Your task to perform on an android device: turn pop-ups off in chrome Image 0: 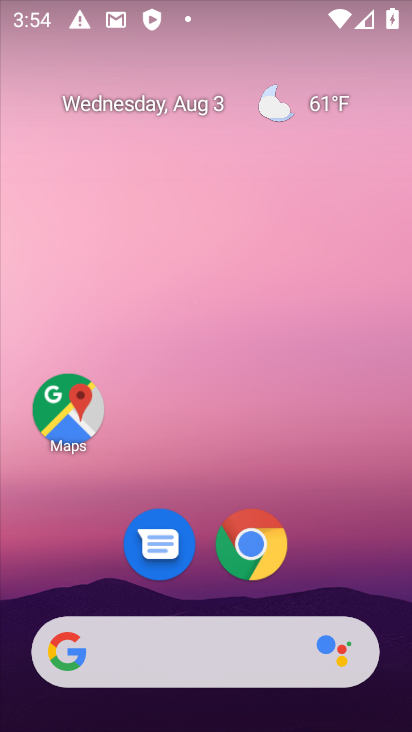
Step 0: click (261, 535)
Your task to perform on an android device: turn pop-ups off in chrome Image 1: 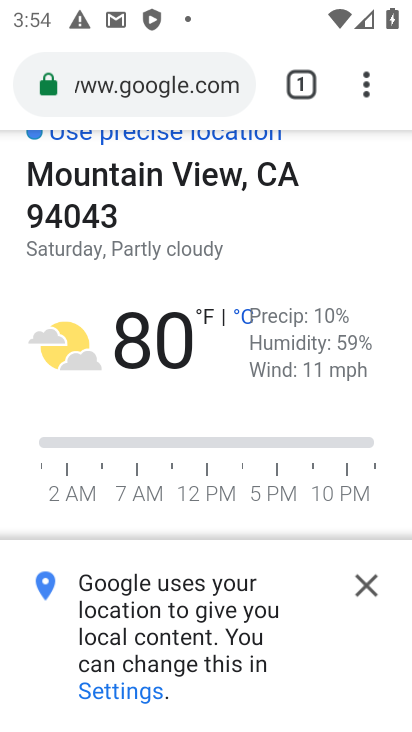
Step 1: drag from (364, 87) to (113, 602)
Your task to perform on an android device: turn pop-ups off in chrome Image 2: 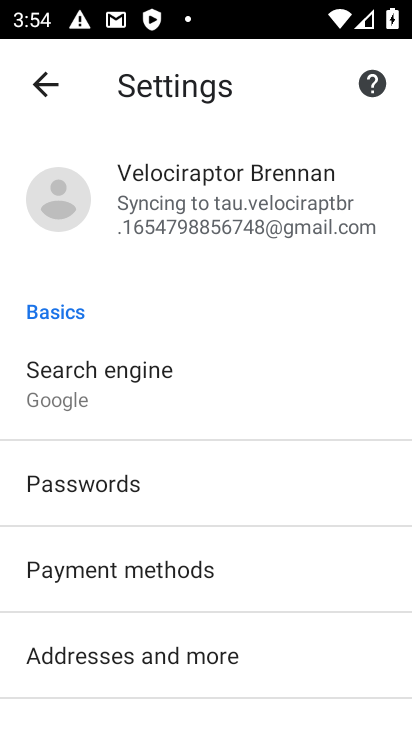
Step 2: drag from (189, 622) to (250, 241)
Your task to perform on an android device: turn pop-ups off in chrome Image 3: 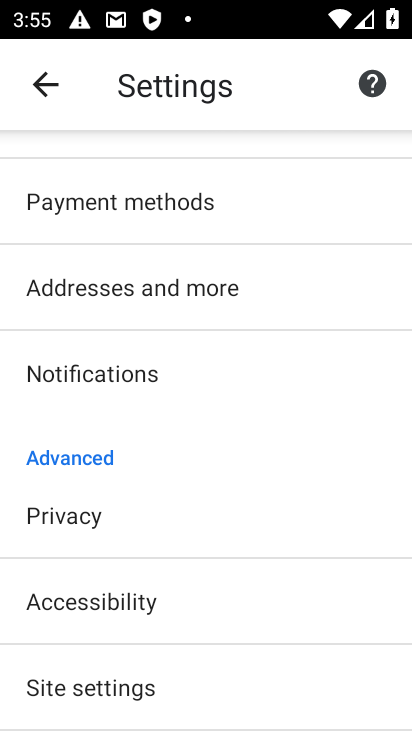
Step 3: drag from (206, 605) to (209, 348)
Your task to perform on an android device: turn pop-ups off in chrome Image 4: 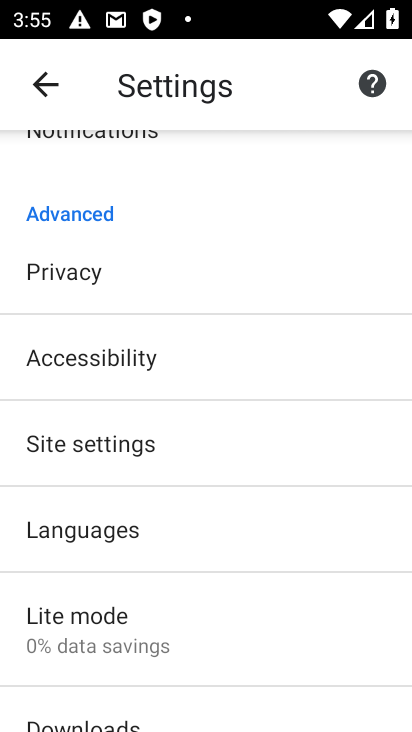
Step 4: click (99, 438)
Your task to perform on an android device: turn pop-ups off in chrome Image 5: 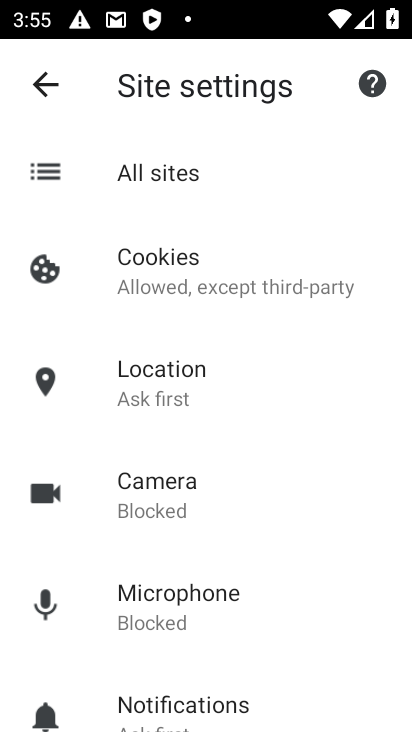
Step 5: drag from (229, 671) to (223, 218)
Your task to perform on an android device: turn pop-ups off in chrome Image 6: 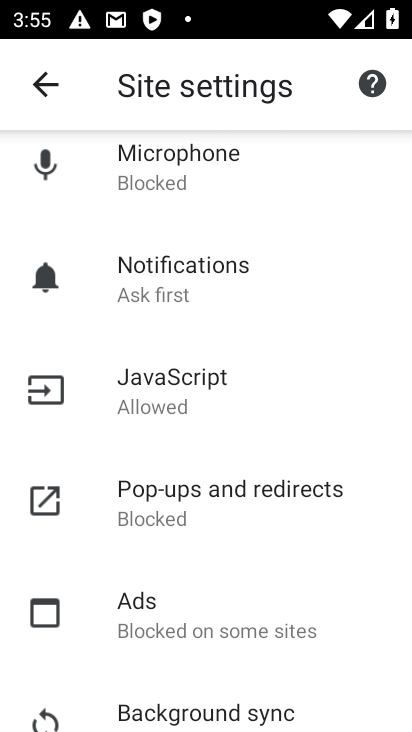
Step 6: click (201, 492)
Your task to perform on an android device: turn pop-ups off in chrome Image 7: 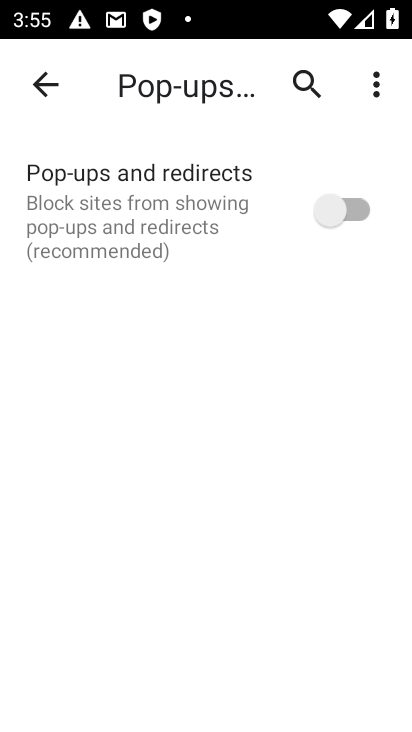
Step 7: task complete